Your task to perform on an android device: check the backup settings in the google photos Image 0: 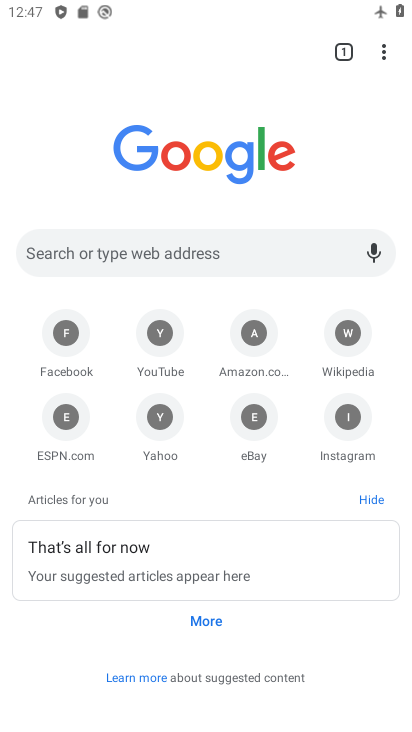
Step 0: press home button
Your task to perform on an android device: check the backup settings in the google photos Image 1: 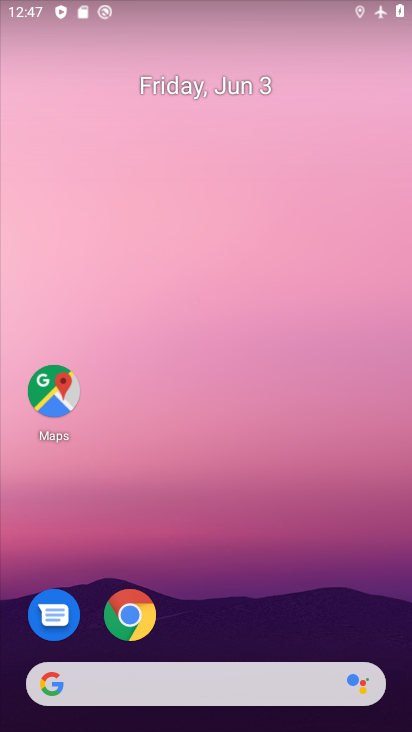
Step 1: drag from (191, 654) to (247, 221)
Your task to perform on an android device: check the backup settings in the google photos Image 2: 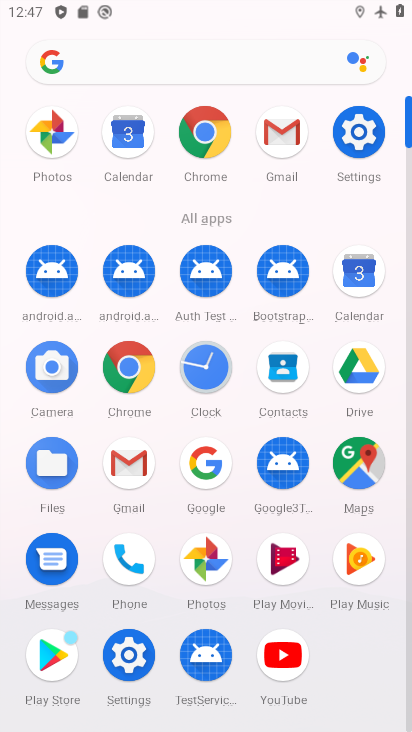
Step 2: click (208, 573)
Your task to perform on an android device: check the backup settings in the google photos Image 3: 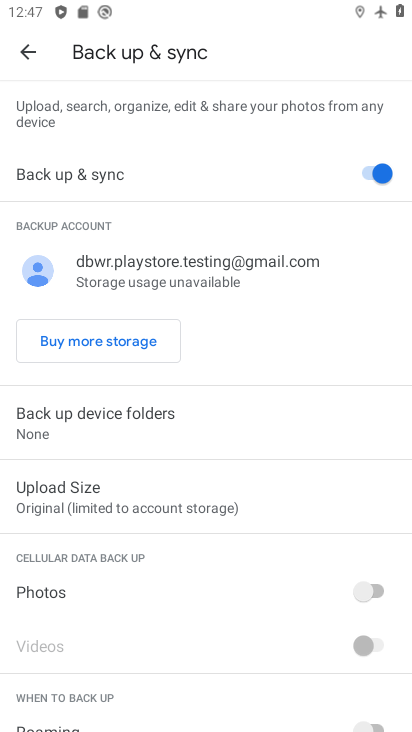
Step 3: task complete